Your task to perform on an android device: turn pop-ups on in chrome Image 0: 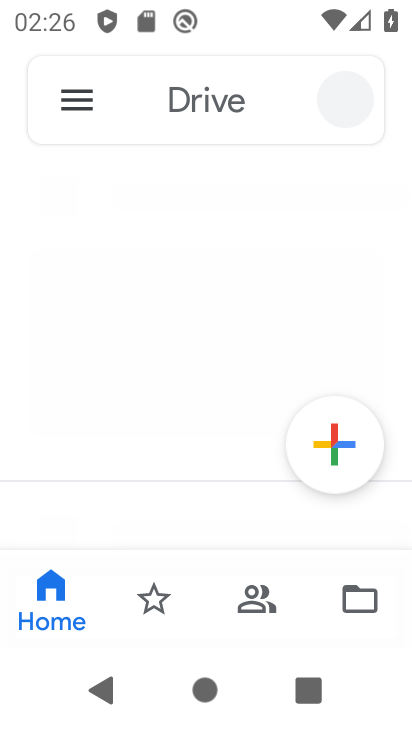
Step 0: press home button
Your task to perform on an android device: turn pop-ups on in chrome Image 1: 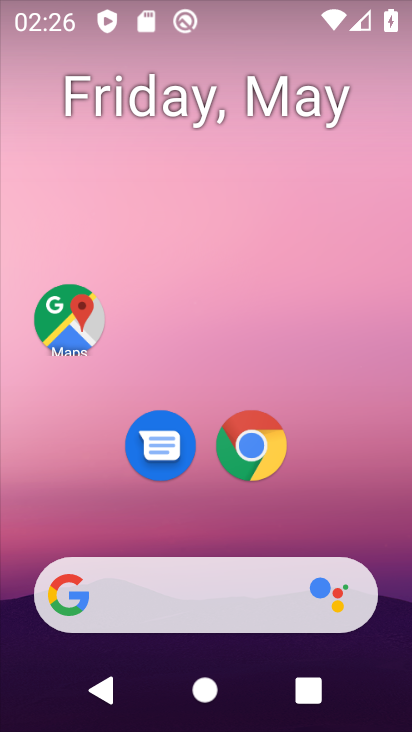
Step 1: click (261, 462)
Your task to perform on an android device: turn pop-ups on in chrome Image 2: 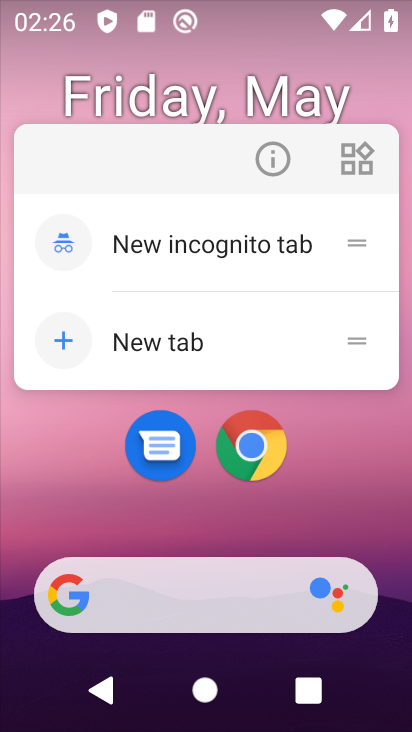
Step 2: click (278, 449)
Your task to perform on an android device: turn pop-ups on in chrome Image 3: 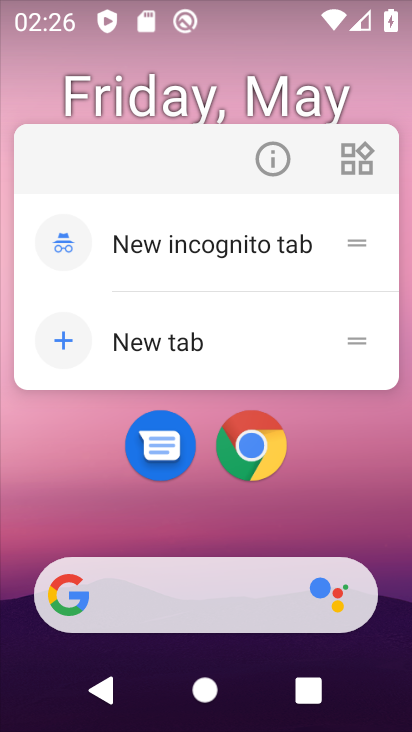
Step 3: click (271, 449)
Your task to perform on an android device: turn pop-ups on in chrome Image 4: 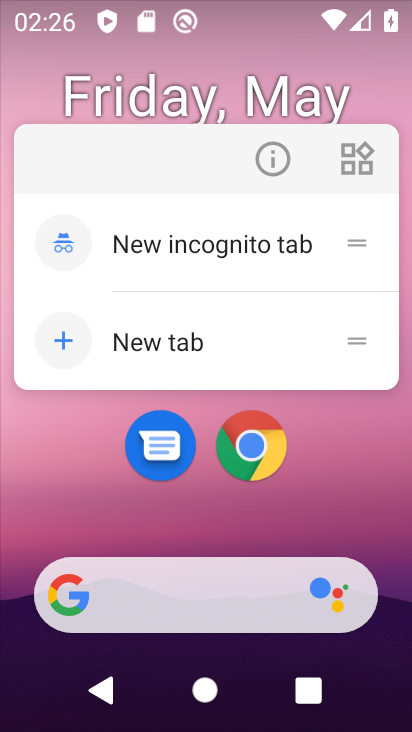
Step 4: click (257, 457)
Your task to perform on an android device: turn pop-ups on in chrome Image 5: 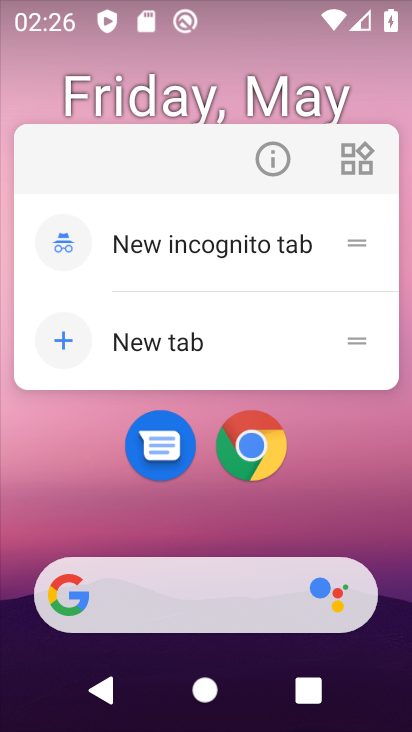
Step 5: click (247, 451)
Your task to perform on an android device: turn pop-ups on in chrome Image 6: 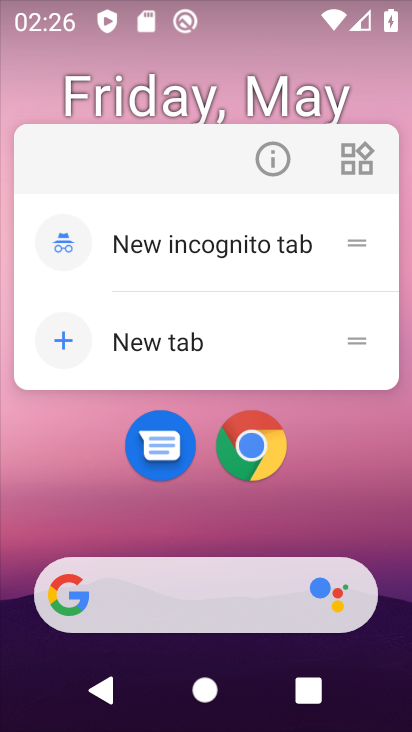
Step 6: click (260, 452)
Your task to perform on an android device: turn pop-ups on in chrome Image 7: 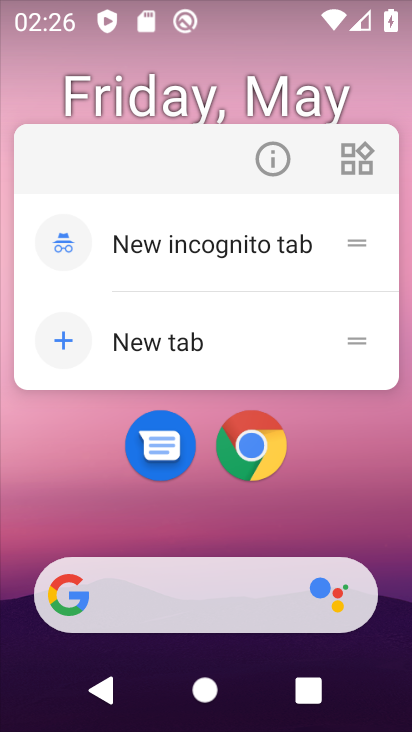
Step 7: click (260, 448)
Your task to perform on an android device: turn pop-ups on in chrome Image 8: 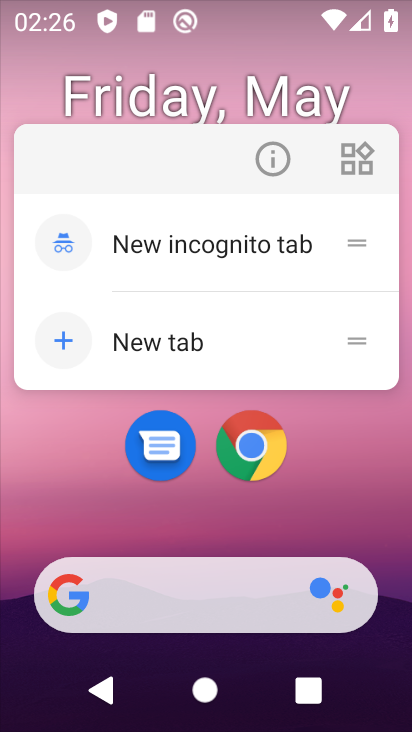
Step 8: click (260, 448)
Your task to perform on an android device: turn pop-ups on in chrome Image 9: 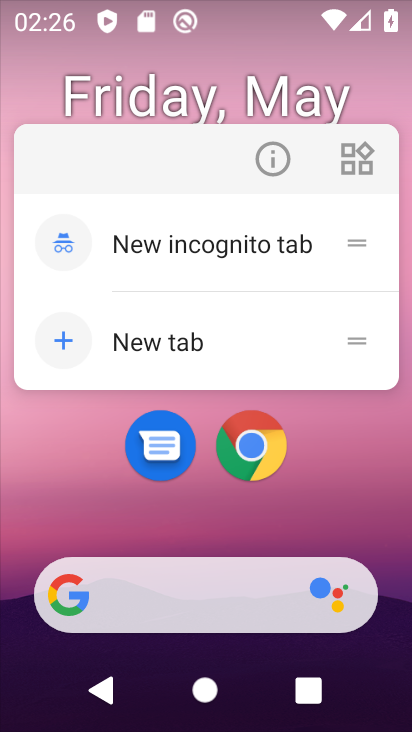
Step 9: click (248, 463)
Your task to perform on an android device: turn pop-ups on in chrome Image 10: 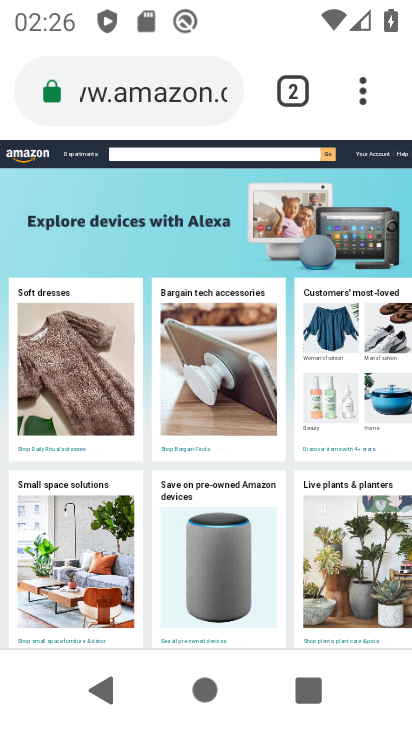
Step 10: drag from (370, 78) to (303, 488)
Your task to perform on an android device: turn pop-ups on in chrome Image 11: 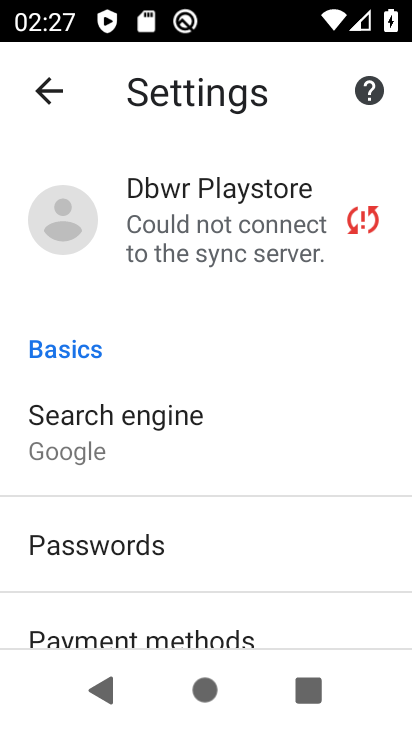
Step 11: drag from (174, 569) to (254, 364)
Your task to perform on an android device: turn pop-ups on in chrome Image 12: 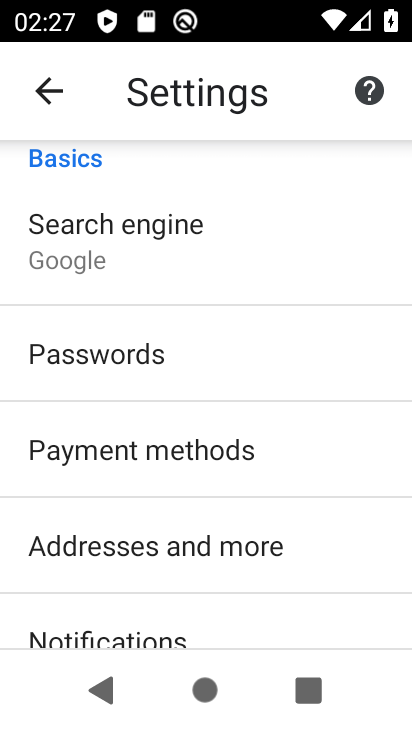
Step 12: drag from (174, 624) to (275, 349)
Your task to perform on an android device: turn pop-ups on in chrome Image 13: 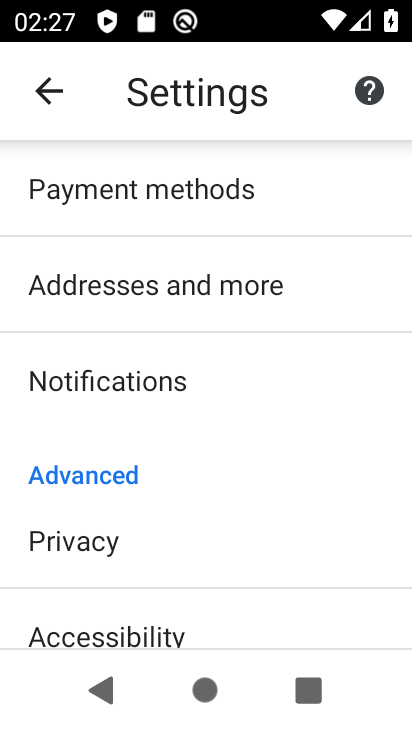
Step 13: drag from (195, 587) to (294, 282)
Your task to perform on an android device: turn pop-ups on in chrome Image 14: 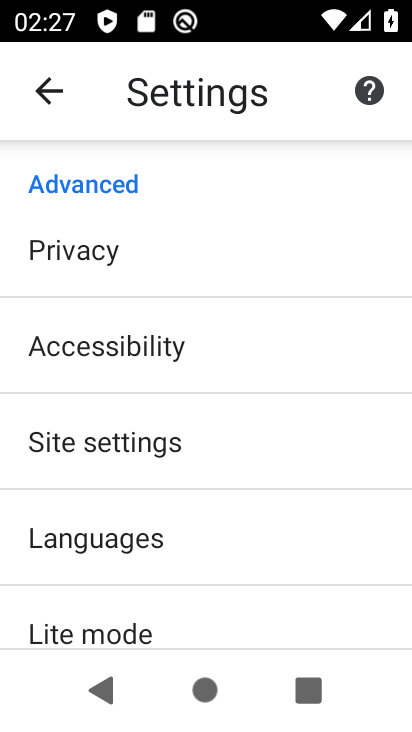
Step 14: drag from (181, 570) to (255, 286)
Your task to perform on an android device: turn pop-ups on in chrome Image 15: 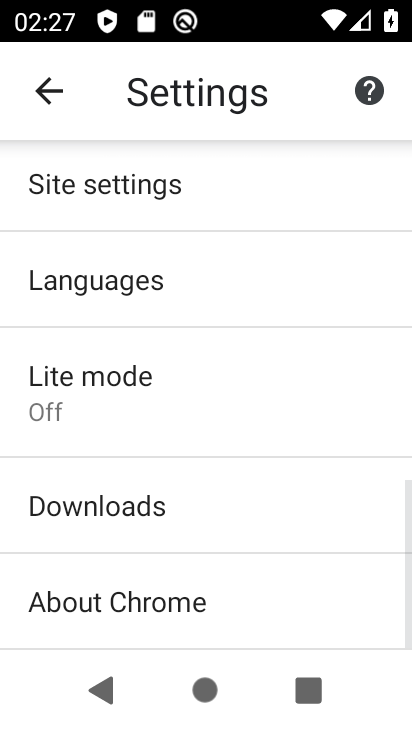
Step 15: drag from (164, 599) to (269, 522)
Your task to perform on an android device: turn pop-ups on in chrome Image 16: 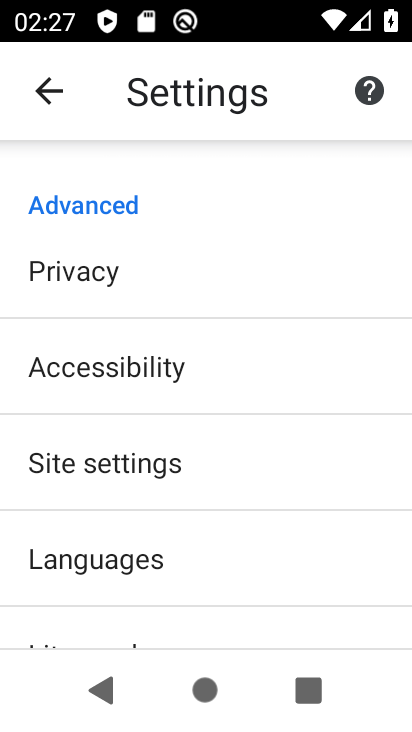
Step 16: click (228, 454)
Your task to perform on an android device: turn pop-ups on in chrome Image 17: 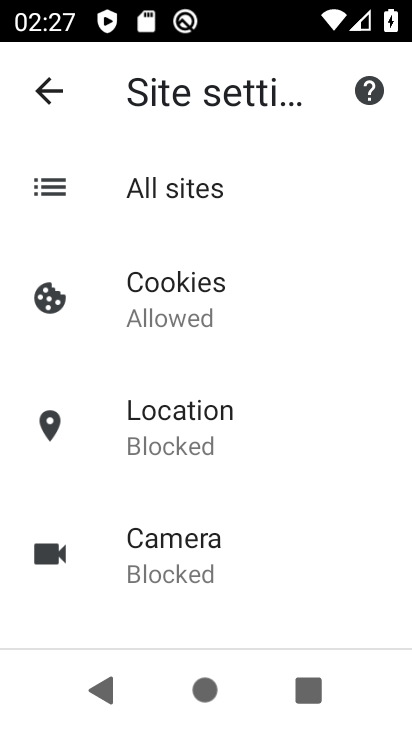
Step 17: drag from (216, 577) to (305, 265)
Your task to perform on an android device: turn pop-ups on in chrome Image 18: 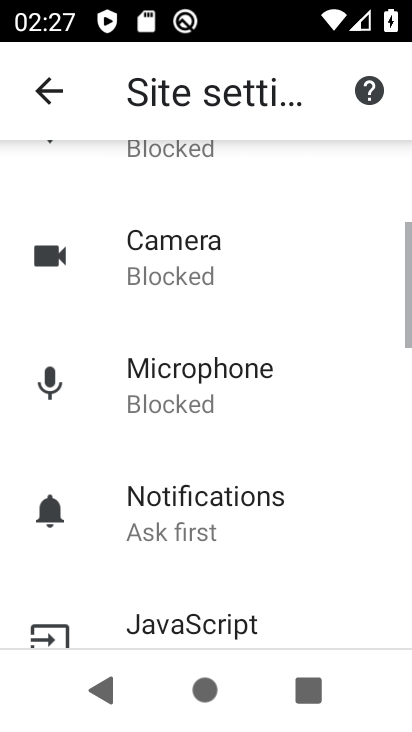
Step 18: drag from (241, 546) to (330, 220)
Your task to perform on an android device: turn pop-ups on in chrome Image 19: 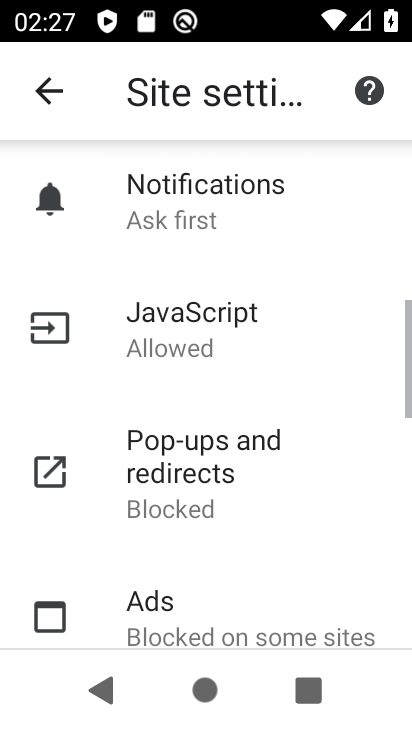
Step 19: click (267, 469)
Your task to perform on an android device: turn pop-ups on in chrome Image 20: 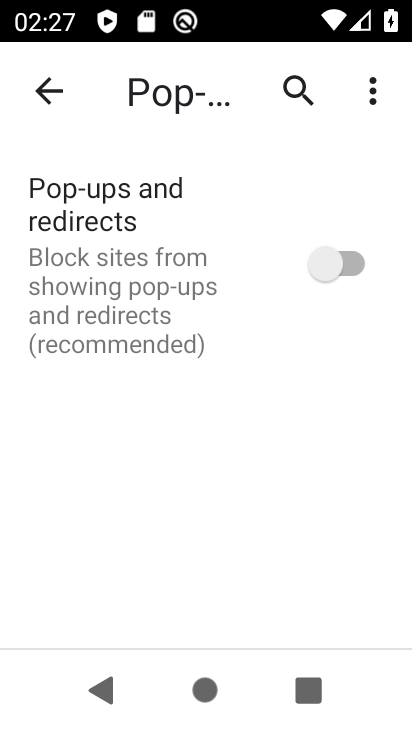
Step 20: click (373, 268)
Your task to perform on an android device: turn pop-ups on in chrome Image 21: 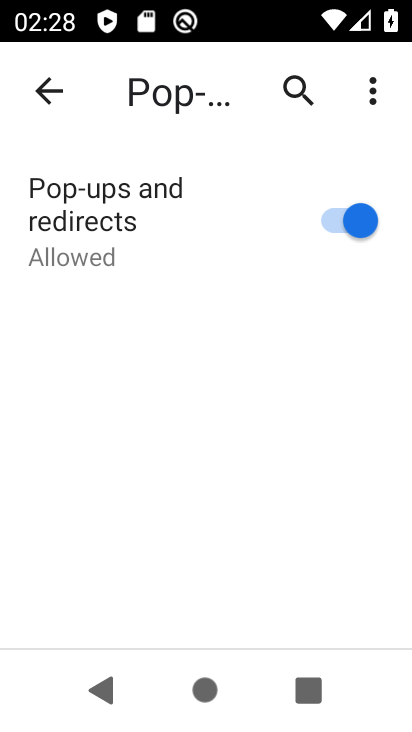
Step 21: task complete